Your task to perform on an android device: What's the price of the EGO 14-in 56-Volt Brushless Cordless Chainsaw? Image 0: 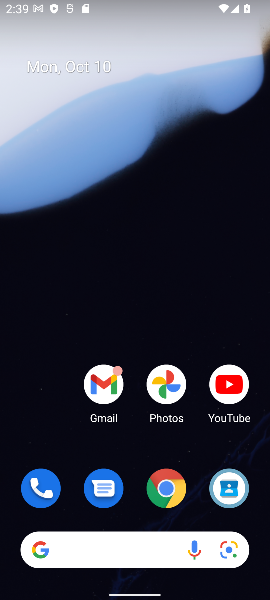
Step 0: click (97, 555)
Your task to perform on an android device: What's the price of the EGO 14-in 56-Volt Brushless Cordless Chainsaw? Image 1: 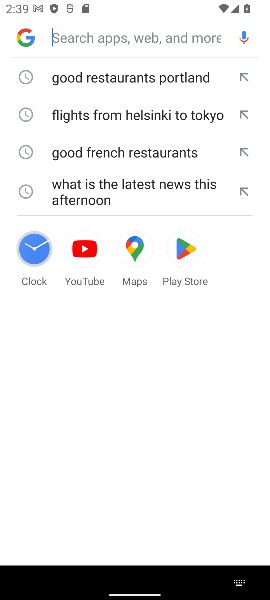
Step 1: click (120, 27)
Your task to perform on an android device: What's the price of the EGO 14-in 56-Volt Brushless Cordless Chainsaw? Image 2: 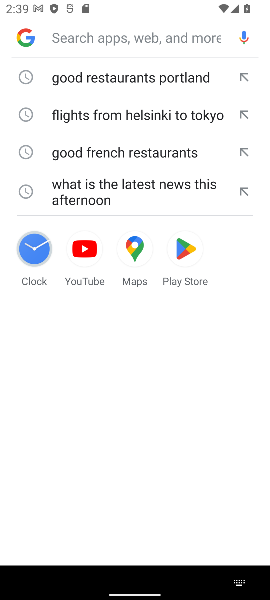
Step 2: type "What's the price of the EGO 14-in 56-Volt Brushless Cordless Chainsaw?"
Your task to perform on an android device: What's the price of the EGO 14-in 56-Volt Brushless Cordless Chainsaw? Image 3: 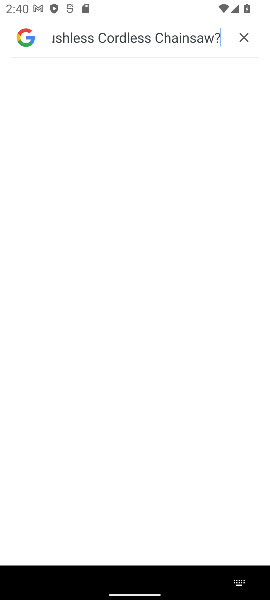
Step 3: task complete